Your task to perform on an android device: turn on bluetooth scan Image 0: 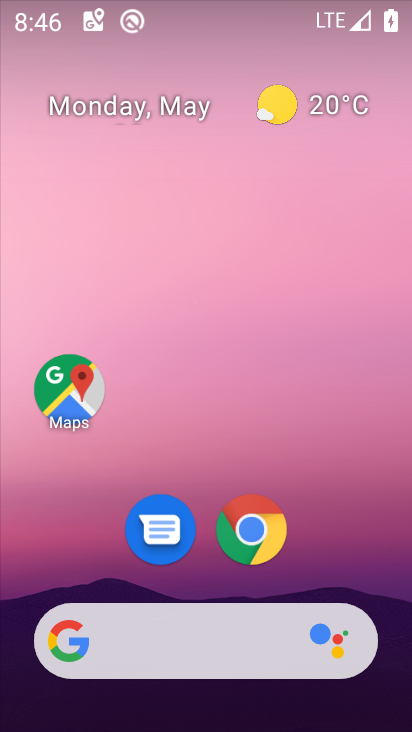
Step 0: drag from (11, 585) to (267, 261)
Your task to perform on an android device: turn on bluetooth scan Image 1: 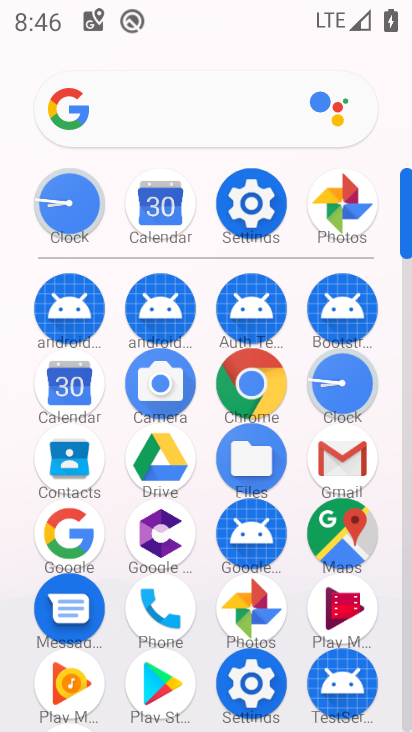
Step 1: click (251, 200)
Your task to perform on an android device: turn on bluetooth scan Image 2: 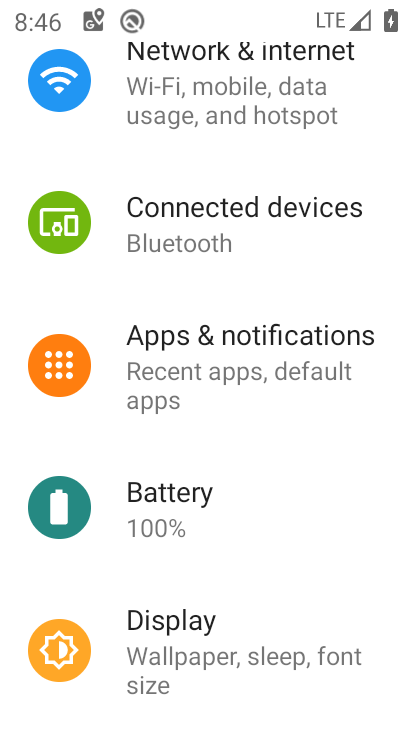
Step 2: drag from (129, 596) to (348, 152)
Your task to perform on an android device: turn on bluetooth scan Image 3: 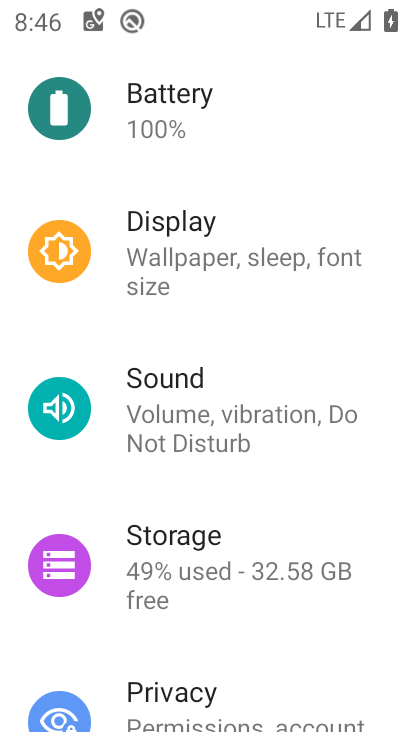
Step 3: drag from (135, 577) to (354, 163)
Your task to perform on an android device: turn on bluetooth scan Image 4: 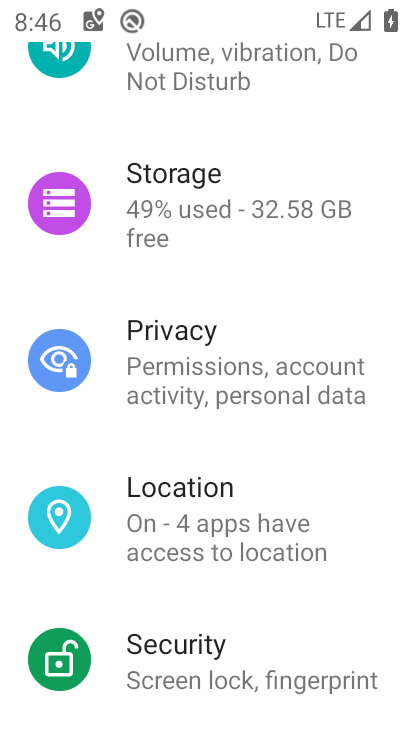
Step 4: click (212, 496)
Your task to perform on an android device: turn on bluetooth scan Image 5: 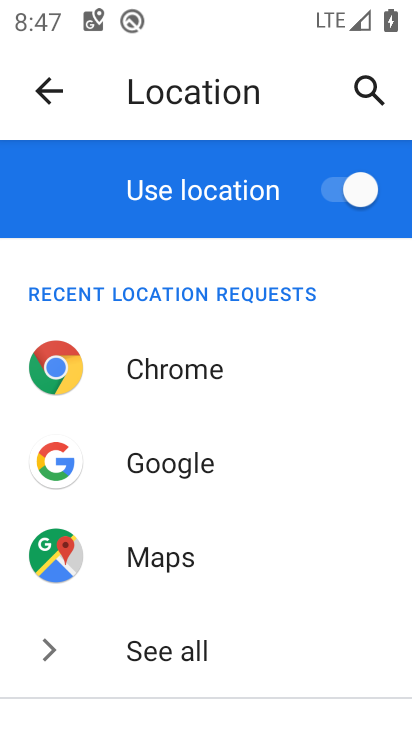
Step 5: drag from (118, 608) to (333, 138)
Your task to perform on an android device: turn on bluetooth scan Image 6: 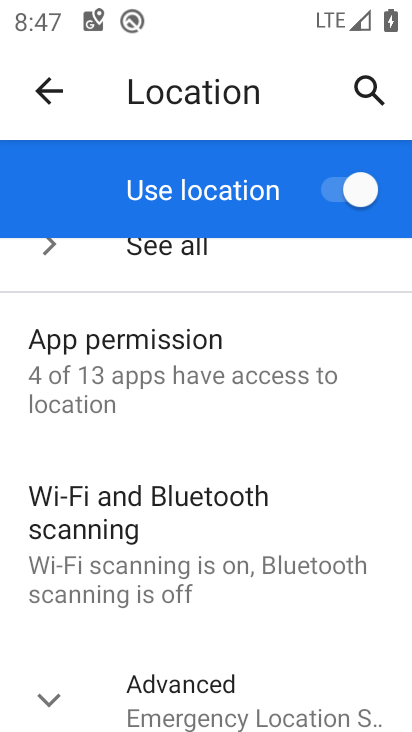
Step 6: click (217, 527)
Your task to perform on an android device: turn on bluetooth scan Image 7: 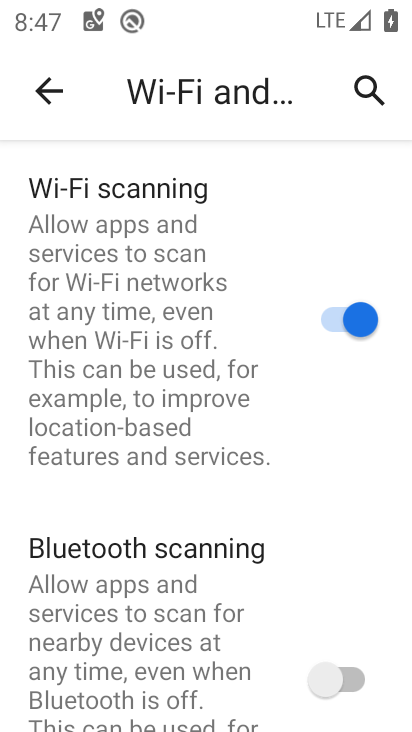
Step 7: click (324, 685)
Your task to perform on an android device: turn on bluetooth scan Image 8: 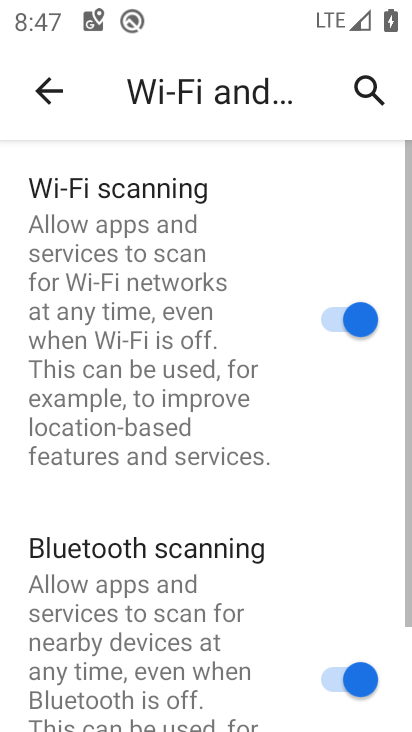
Step 8: task complete